Your task to perform on an android device: turn off improve location accuracy Image 0: 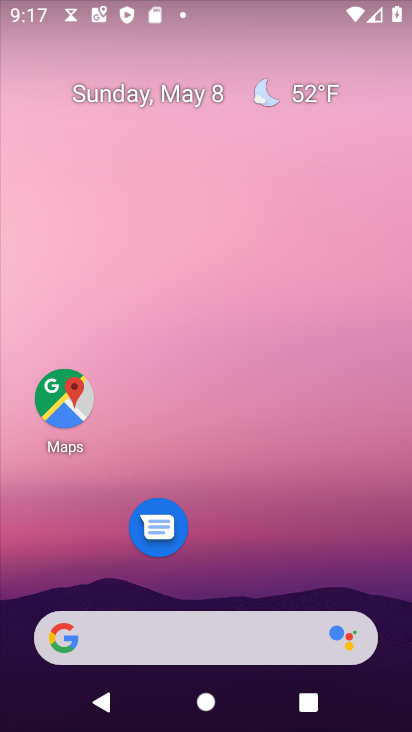
Step 0: drag from (257, 538) to (225, 63)
Your task to perform on an android device: turn off improve location accuracy Image 1: 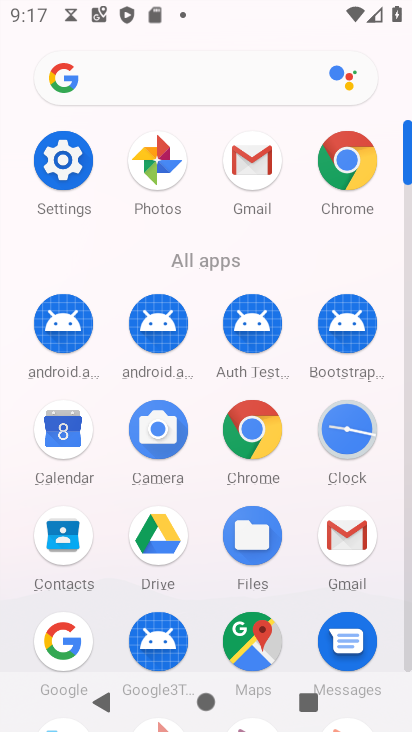
Step 1: click (61, 159)
Your task to perform on an android device: turn off improve location accuracy Image 2: 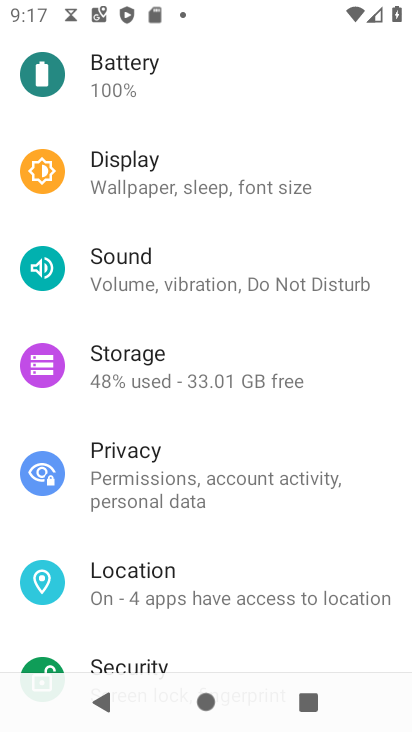
Step 2: click (126, 574)
Your task to perform on an android device: turn off improve location accuracy Image 3: 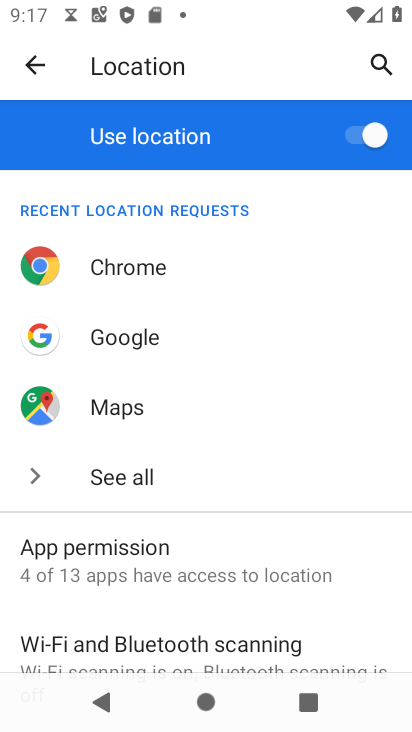
Step 3: drag from (185, 469) to (218, 268)
Your task to perform on an android device: turn off improve location accuracy Image 4: 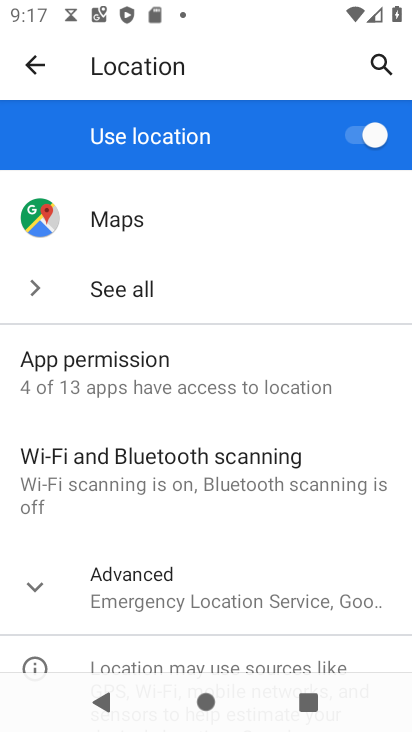
Step 4: drag from (216, 530) to (270, 385)
Your task to perform on an android device: turn off improve location accuracy Image 5: 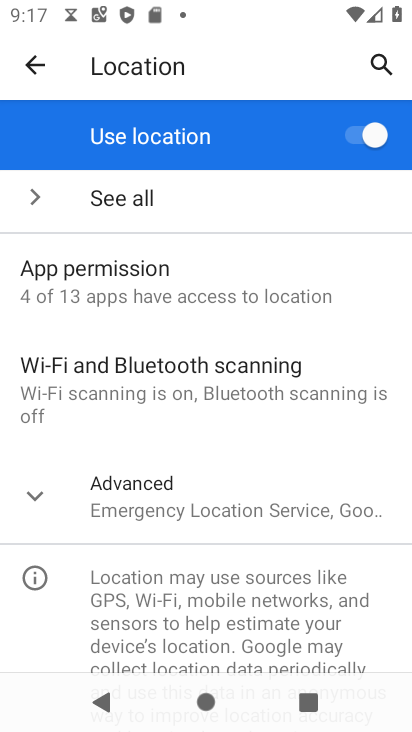
Step 5: click (162, 518)
Your task to perform on an android device: turn off improve location accuracy Image 6: 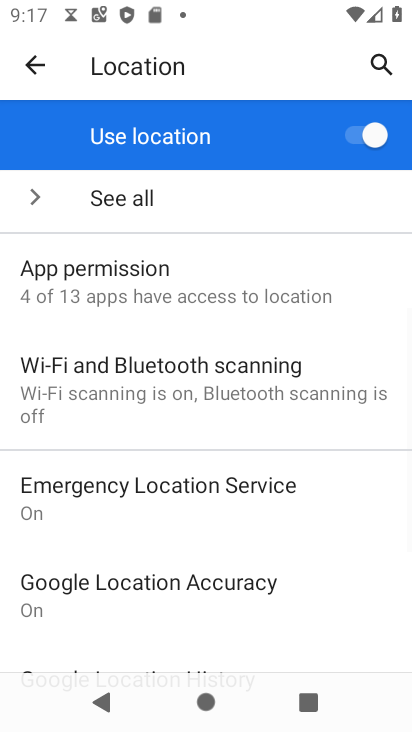
Step 6: drag from (158, 535) to (212, 404)
Your task to perform on an android device: turn off improve location accuracy Image 7: 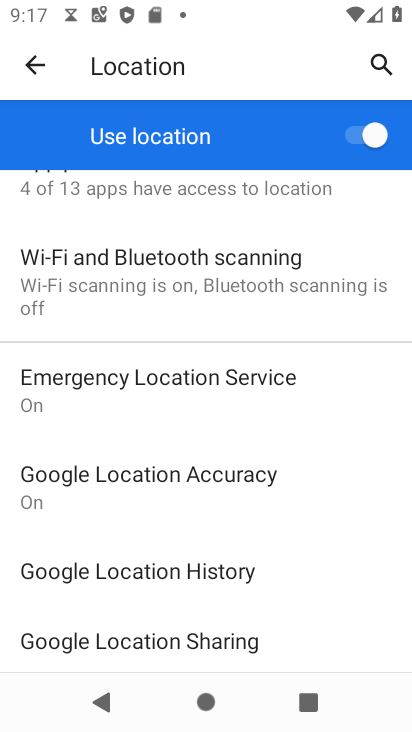
Step 7: drag from (118, 537) to (195, 429)
Your task to perform on an android device: turn off improve location accuracy Image 8: 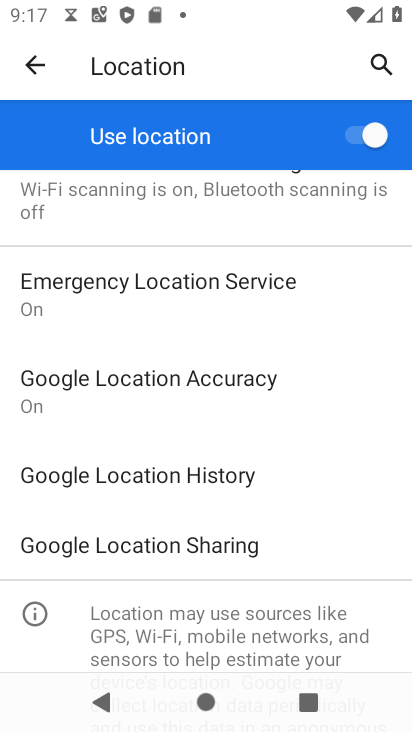
Step 8: click (199, 382)
Your task to perform on an android device: turn off improve location accuracy Image 9: 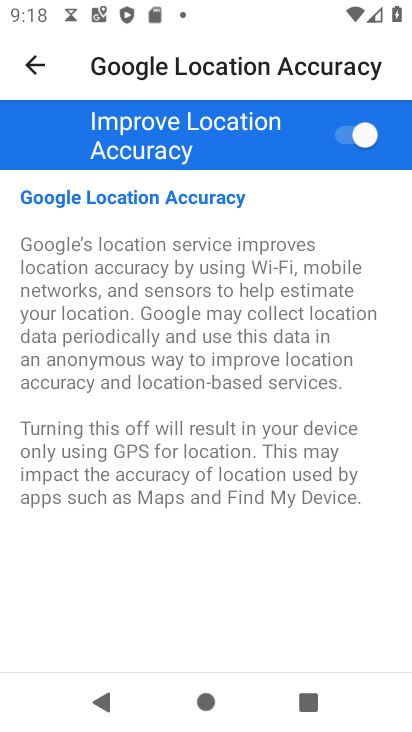
Step 9: click (364, 140)
Your task to perform on an android device: turn off improve location accuracy Image 10: 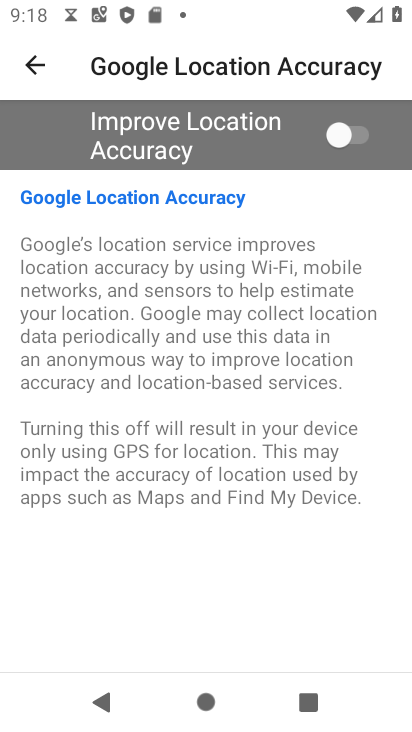
Step 10: task complete